Your task to perform on an android device: clear all cookies in the chrome app Image 0: 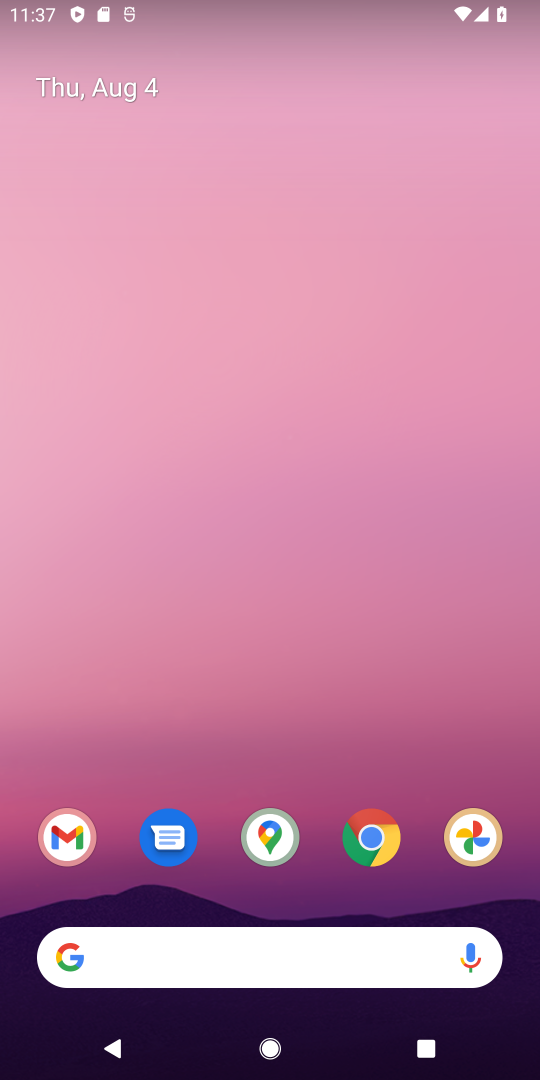
Step 0: click (368, 834)
Your task to perform on an android device: clear all cookies in the chrome app Image 1: 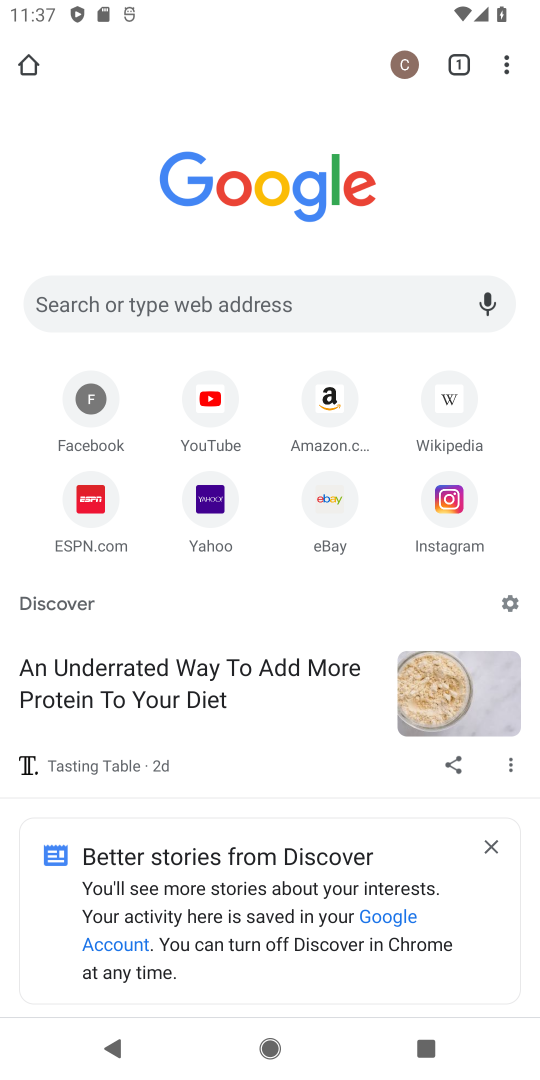
Step 1: click (497, 70)
Your task to perform on an android device: clear all cookies in the chrome app Image 2: 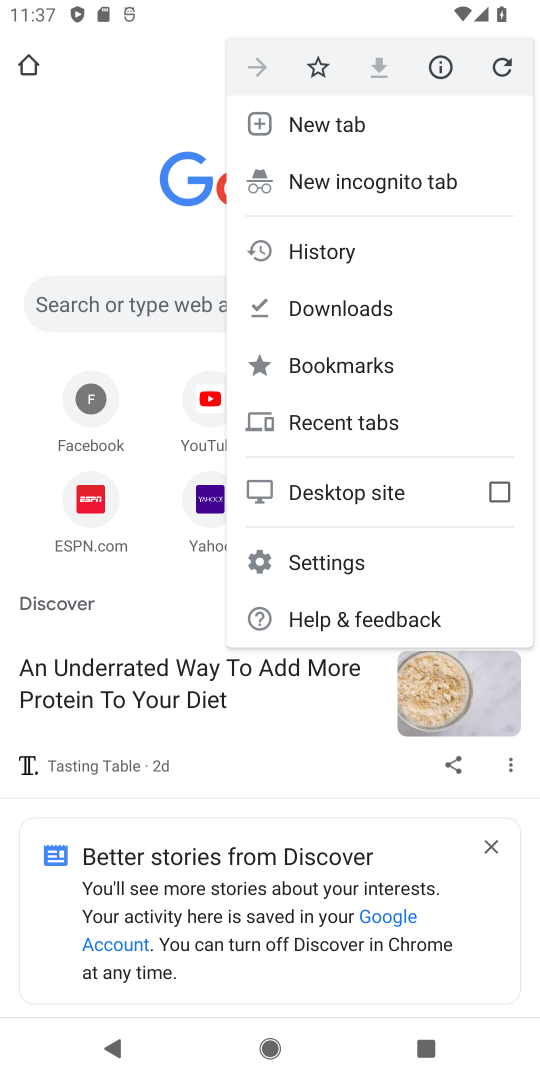
Step 2: click (363, 243)
Your task to perform on an android device: clear all cookies in the chrome app Image 3: 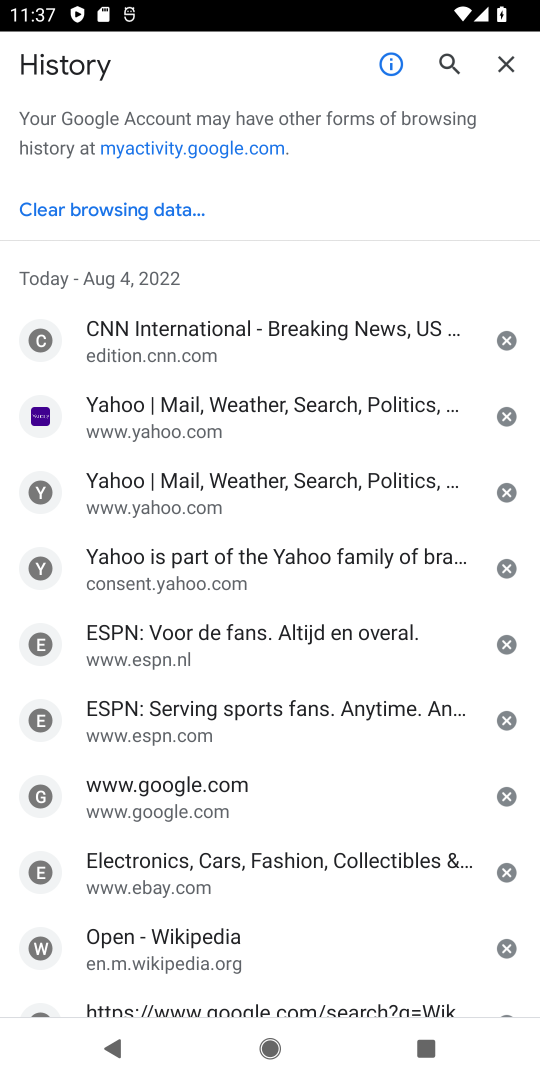
Step 3: click (131, 215)
Your task to perform on an android device: clear all cookies in the chrome app Image 4: 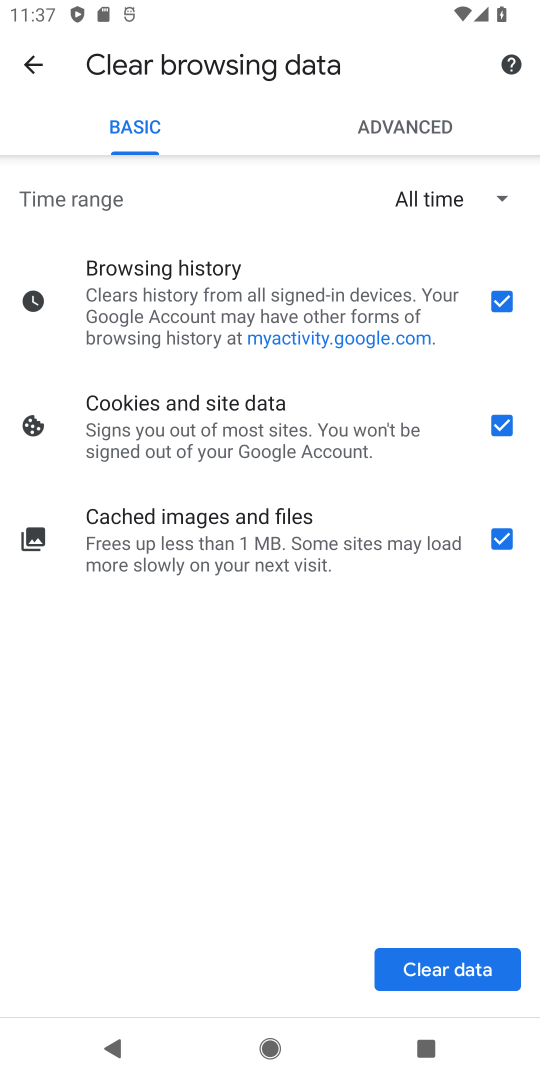
Step 4: click (488, 296)
Your task to perform on an android device: clear all cookies in the chrome app Image 5: 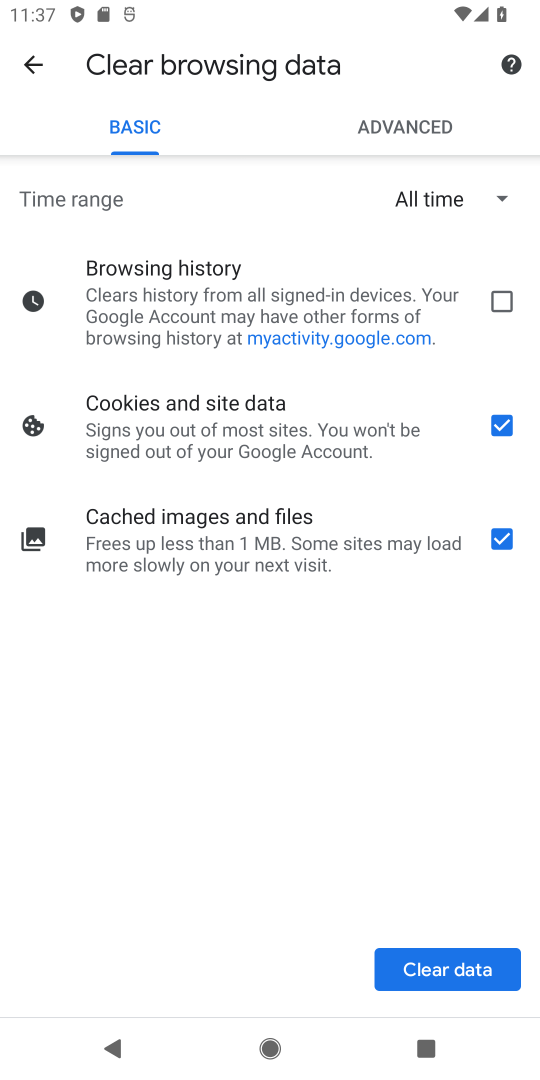
Step 5: click (496, 541)
Your task to perform on an android device: clear all cookies in the chrome app Image 6: 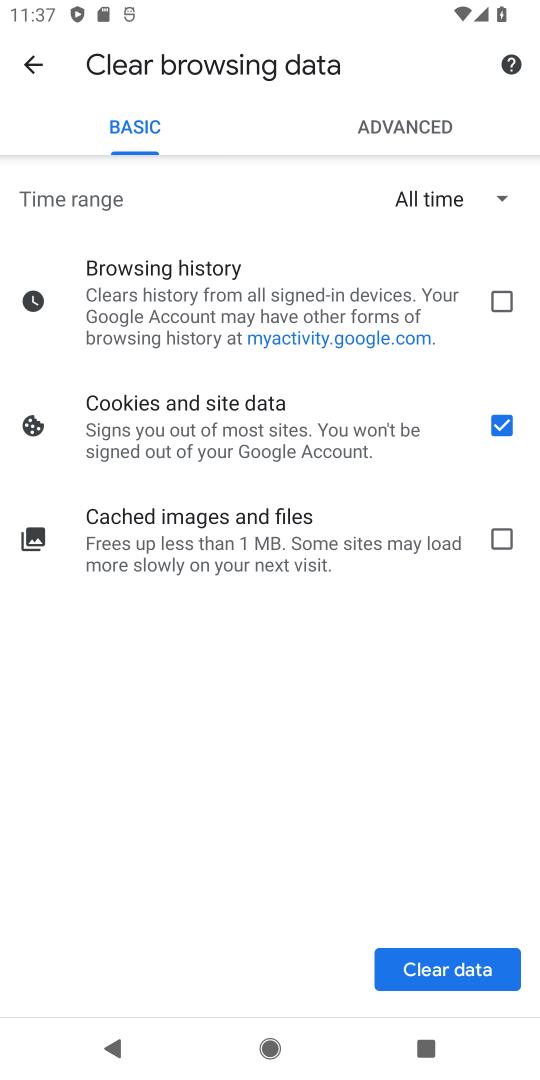
Step 6: click (439, 959)
Your task to perform on an android device: clear all cookies in the chrome app Image 7: 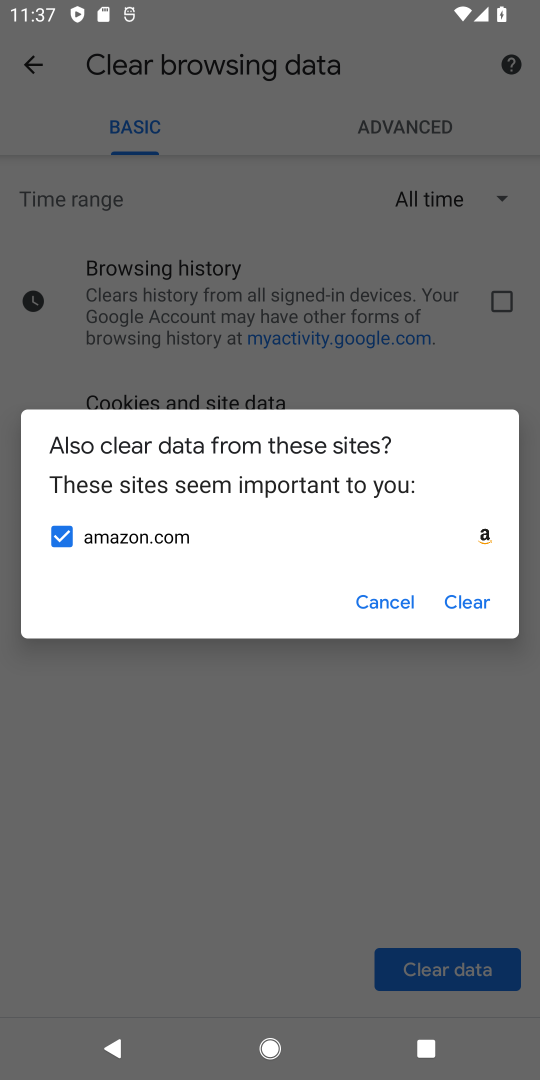
Step 7: click (459, 592)
Your task to perform on an android device: clear all cookies in the chrome app Image 8: 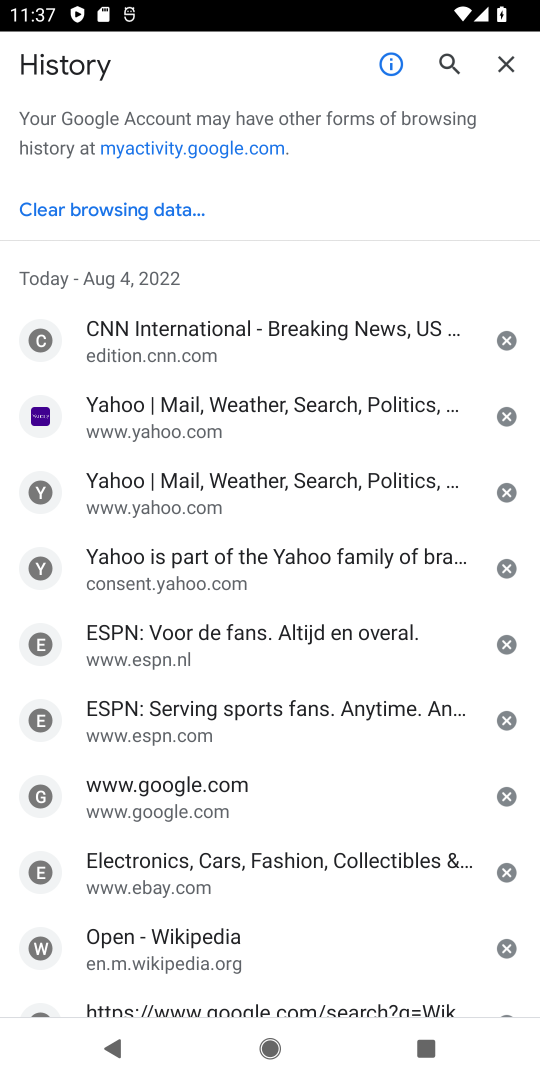
Step 8: task complete